Your task to perform on an android device: turn off translation in the chrome app Image 0: 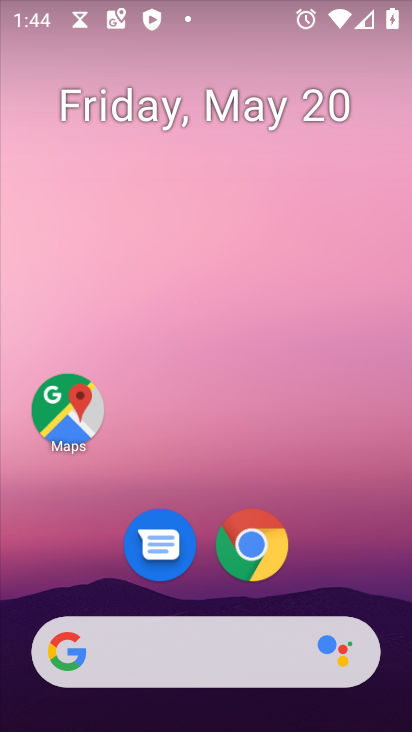
Step 0: click (263, 554)
Your task to perform on an android device: turn off translation in the chrome app Image 1: 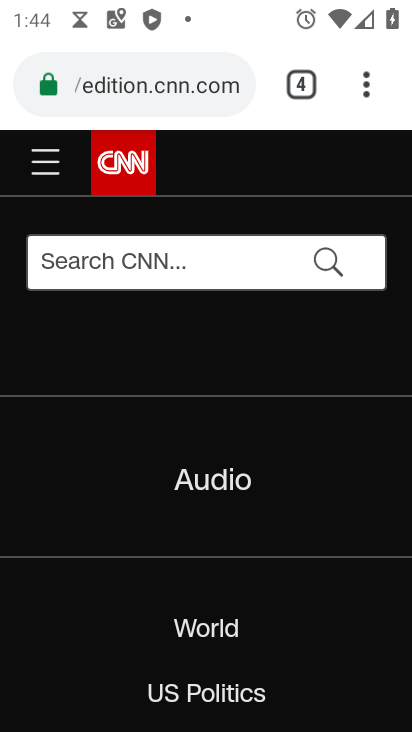
Step 1: click (373, 87)
Your task to perform on an android device: turn off translation in the chrome app Image 2: 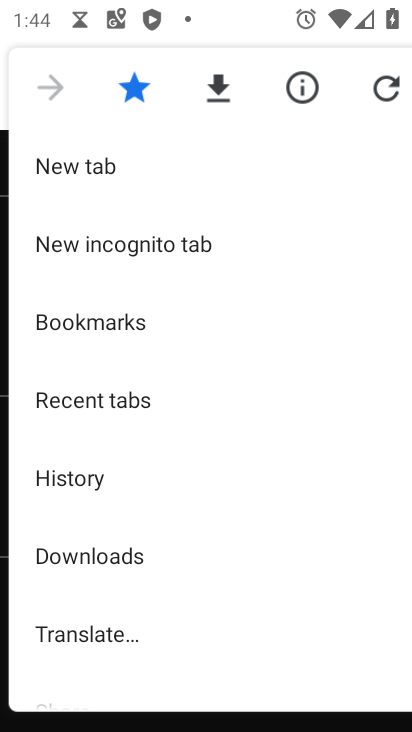
Step 2: drag from (193, 601) to (220, 221)
Your task to perform on an android device: turn off translation in the chrome app Image 3: 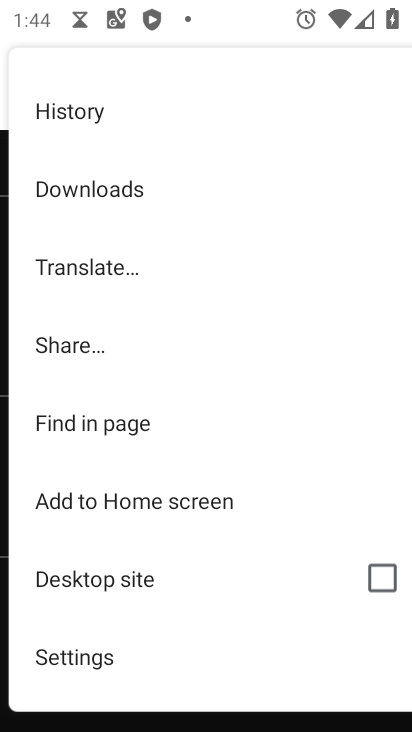
Step 3: click (112, 652)
Your task to perform on an android device: turn off translation in the chrome app Image 4: 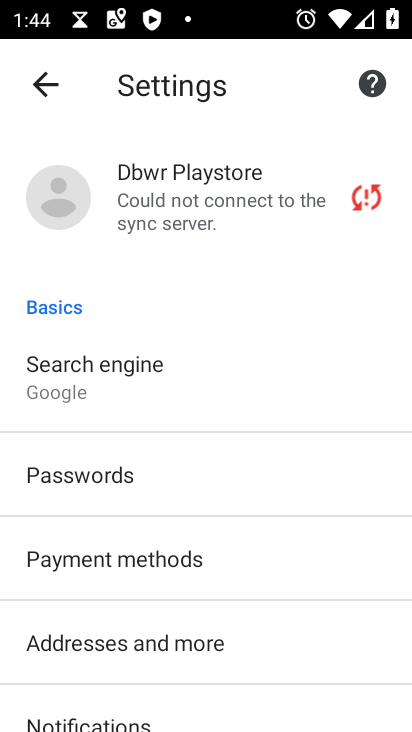
Step 4: drag from (265, 649) to (260, 351)
Your task to perform on an android device: turn off translation in the chrome app Image 5: 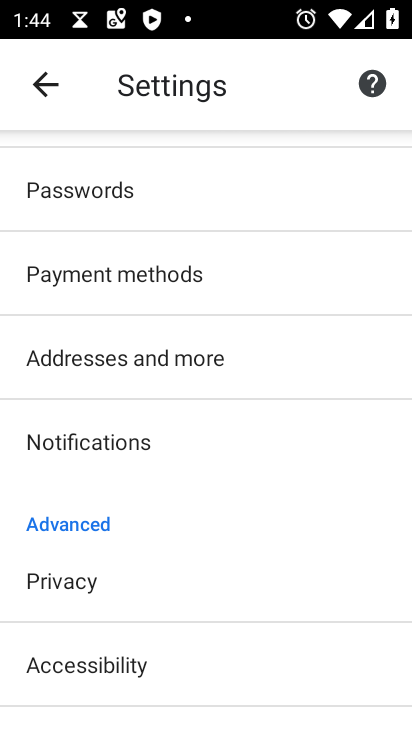
Step 5: drag from (196, 632) to (303, 155)
Your task to perform on an android device: turn off translation in the chrome app Image 6: 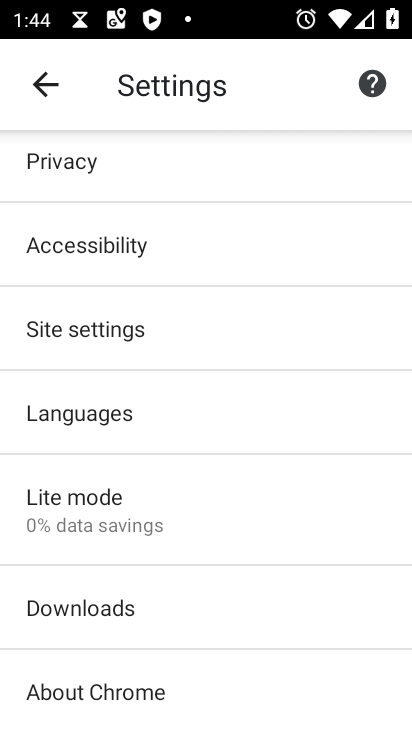
Step 6: click (139, 426)
Your task to perform on an android device: turn off translation in the chrome app Image 7: 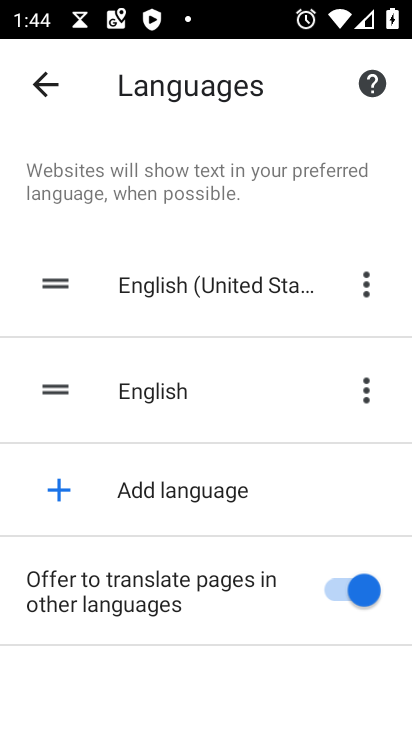
Step 7: click (342, 593)
Your task to perform on an android device: turn off translation in the chrome app Image 8: 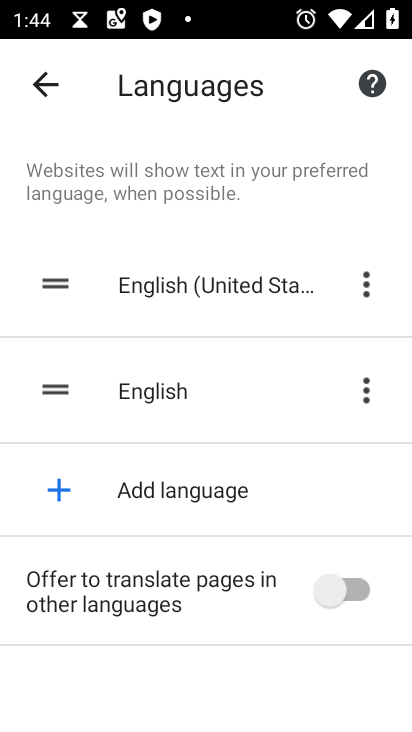
Step 8: task complete